Your task to perform on an android device: turn on sleep mode Image 0: 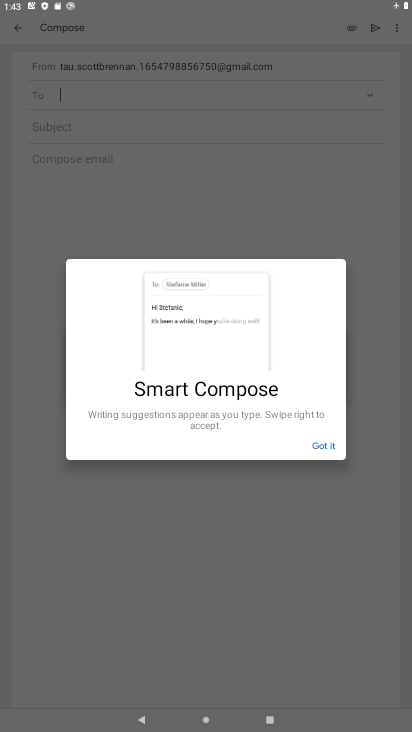
Step 0: drag from (149, 1) to (277, 723)
Your task to perform on an android device: turn on sleep mode Image 1: 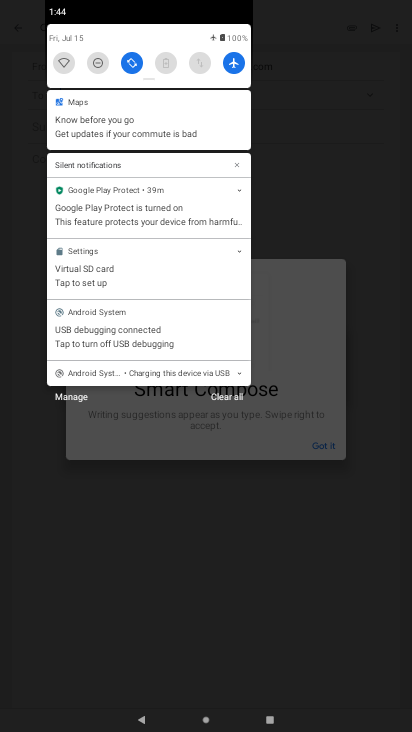
Step 1: drag from (156, 99) to (168, 618)
Your task to perform on an android device: turn on sleep mode Image 2: 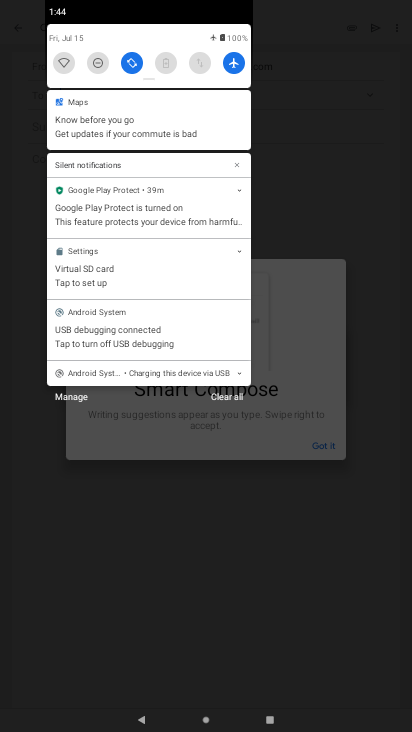
Step 2: drag from (214, 633) to (299, 2)
Your task to perform on an android device: turn on sleep mode Image 3: 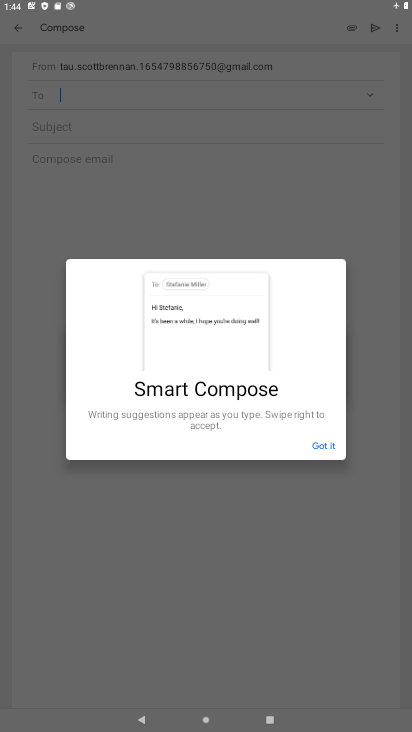
Step 3: press home button
Your task to perform on an android device: turn on sleep mode Image 4: 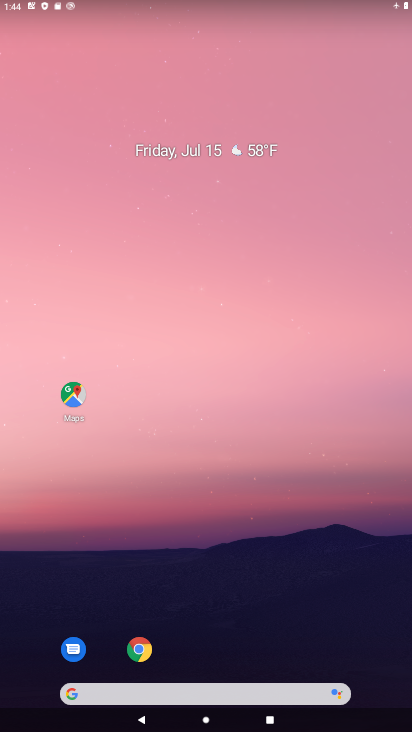
Step 4: drag from (286, 632) to (264, 2)
Your task to perform on an android device: turn on sleep mode Image 5: 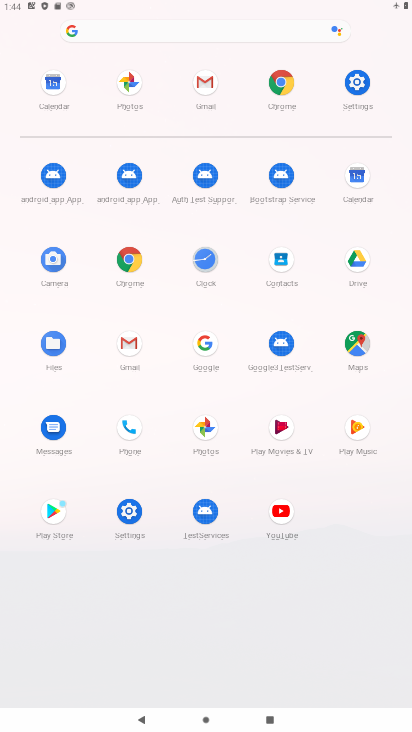
Step 5: click (351, 89)
Your task to perform on an android device: turn on sleep mode Image 6: 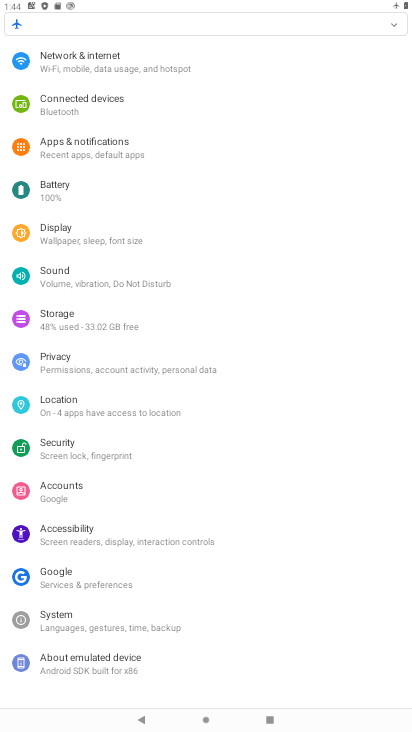
Step 6: click (109, 241)
Your task to perform on an android device: turn on sleep mode Image 7: 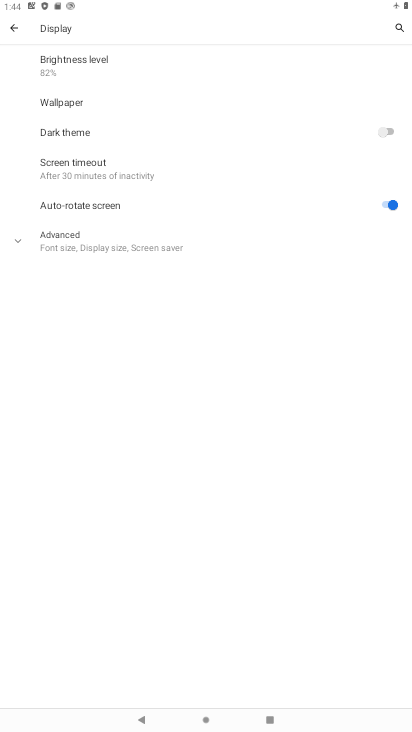
Step 7: task complete